Your task to perform on an android device: change timer sound Image 0: 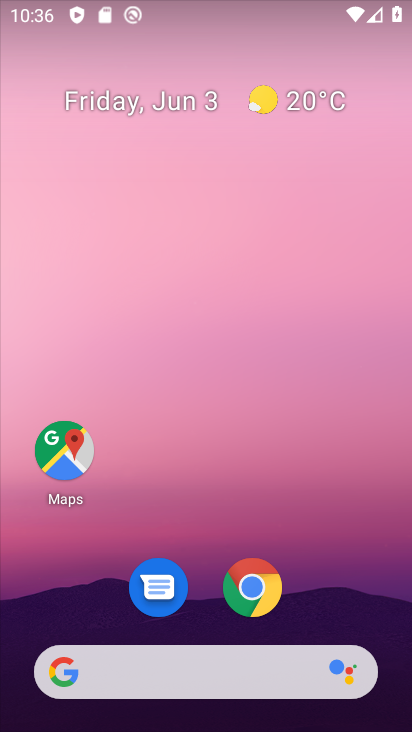
Step 0: drag from (280, 369) to (262, 5)
Your task to perform on an android device: change timer sound Image 1: 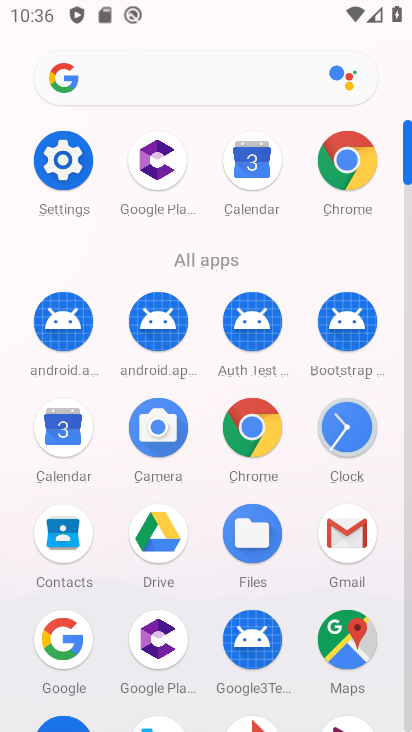
Step 1: click (344, 415)
Your task to perform on an android device: change timer sound Image 2: 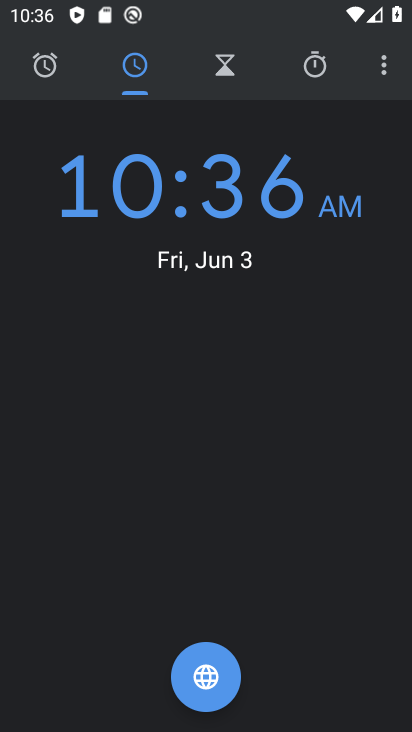
Step 2: click (386, 69)
Your task to perform on an android device: change timer sound Image 3: 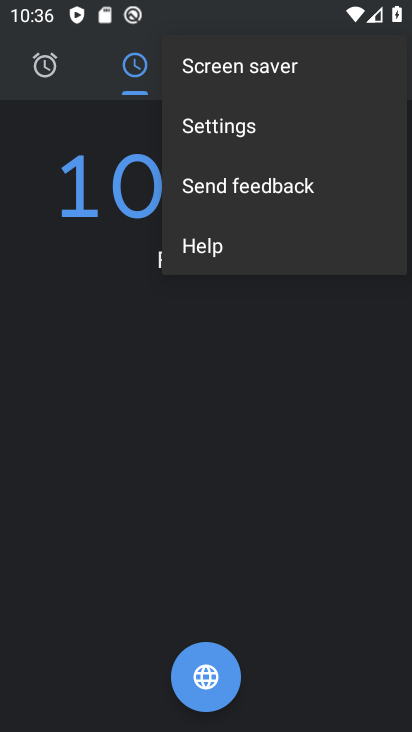
Step 3: click (254, 127)
Your task to perform on an android device: change timer sound Image 4: 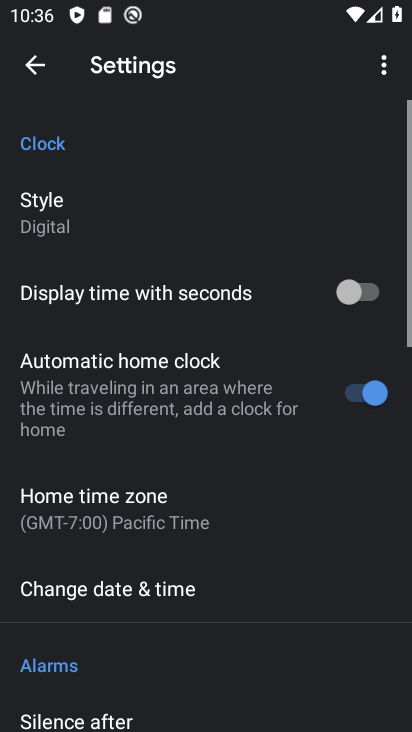
Step 4: drag from (309, 617) to (240, 41)
Your task to perform on an android device: change timer sound Image 5: 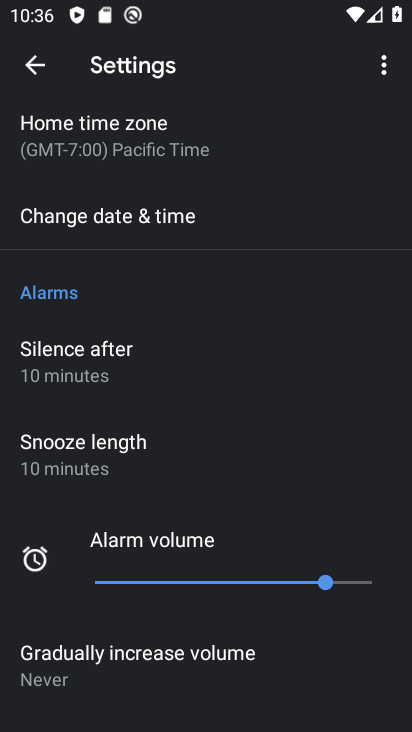
Step 5: drag from (273, 567) to (283, 59)
Your task to perform on an android device: change timer sound Image 6: 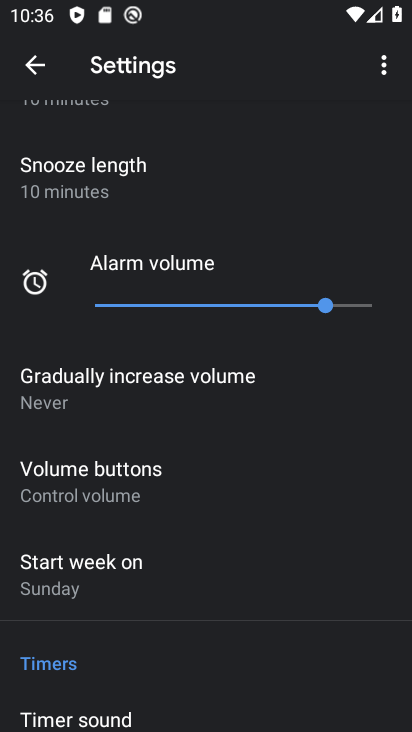
Step 6: click (200, 709)
Your task to perform on an android device: change timer sound Image 7: 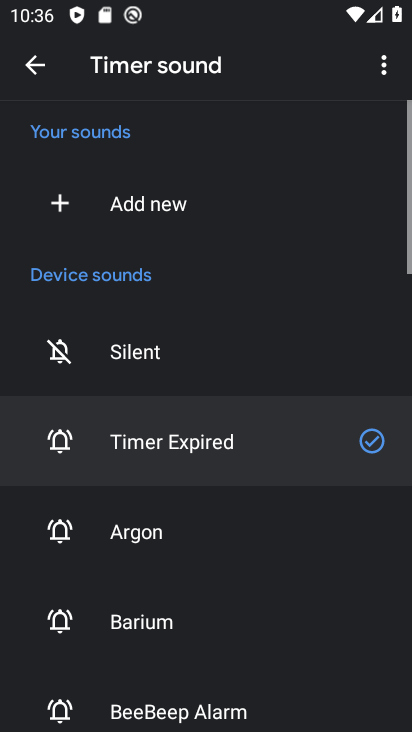
Step 7: click (234, 637)
Your task to perform on an android device: change timer sound Image 8: 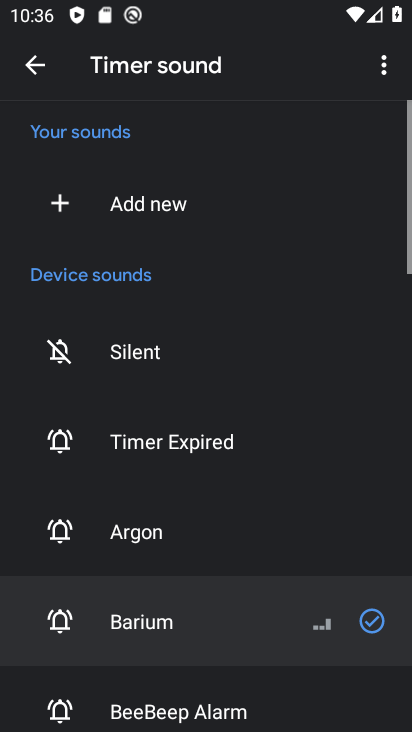
Step 8: task complete